Your task to perform on an android device: turn off notifications settings in the gmail app Image 0: 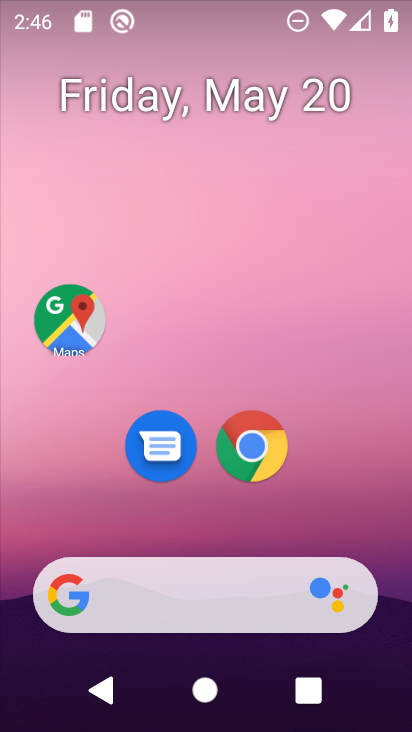
Step 0: drag from (384, 566) to (381, 18)
Your task to perform on an android device: turn off notifications settings in the gmail app Image 1: 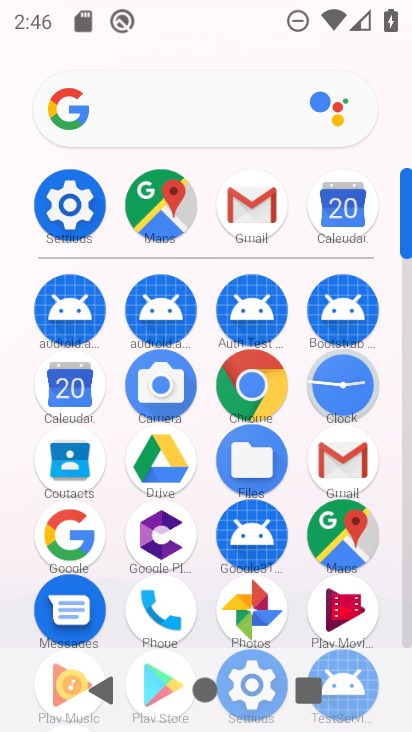
Step 1: click (251, 210)
Your task to perform on an android device: turn off notifications settings in the gmail app Image 2: 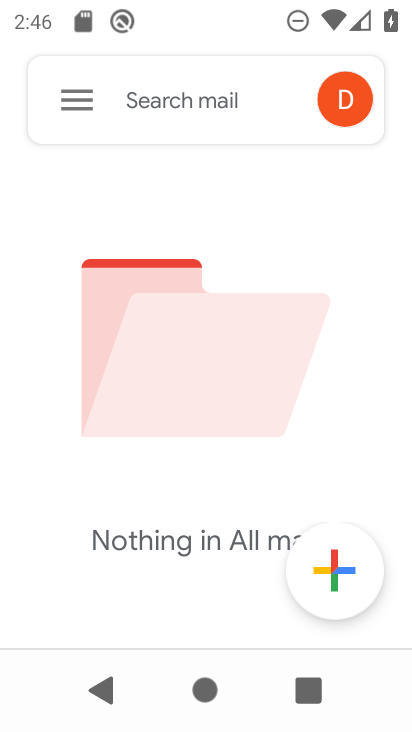
Step 2: click (68, 98)
Your task to perform on an android device: turn off notifications settings in the gmail app Image 3: 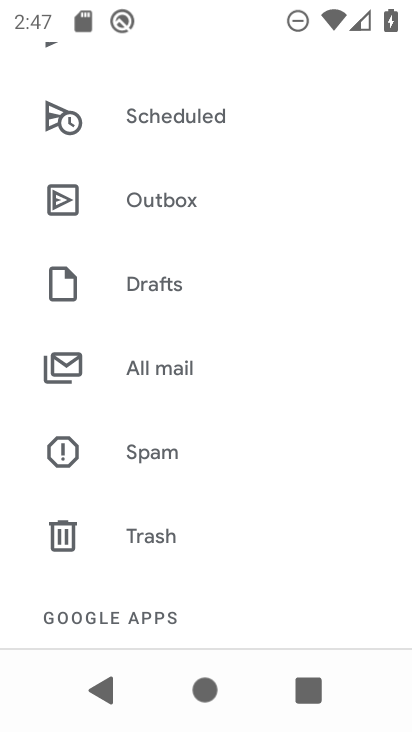
Step 3: drag from (220, 529) to (198, 140)
Your task to perform on an android device: turn off notifications settings in the gmail app Image 4: 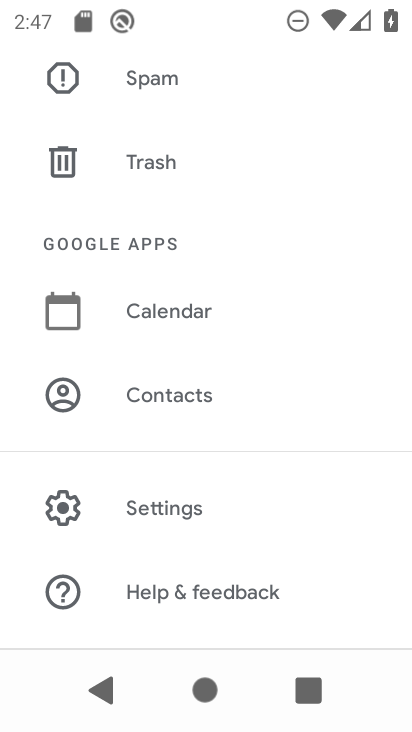
Step 4: click (168, 514)
Your task to perform on an android device: turn off notifications settings in the gmail app Image 5: 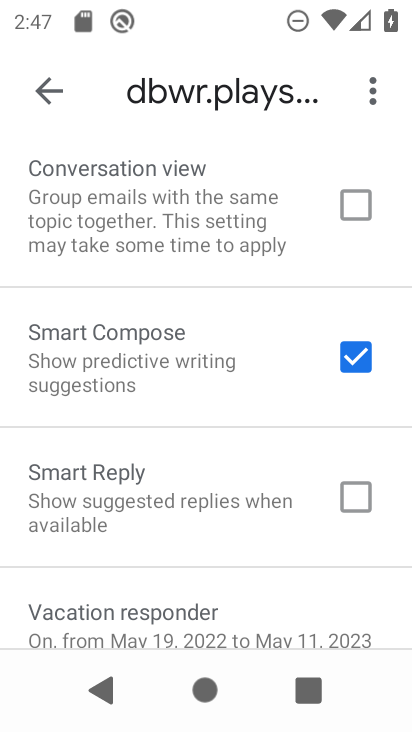
Step 5: drag from (168, 514) to (169, 177)
Your task to perform on an android device: turn off notifications settings in the gmail app Image 6: 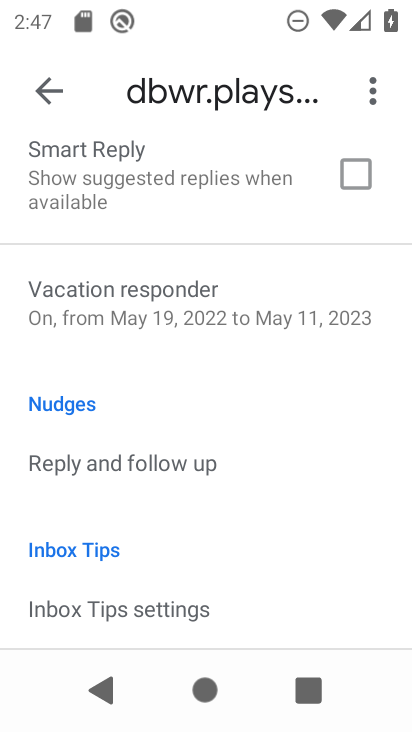
Step 6: click (54, 90)
Your task to perform on an android device: turn off notifications settings in the gmail app Image 7: 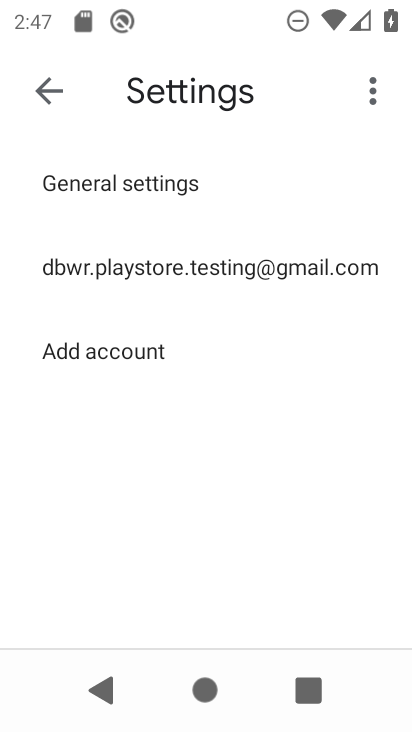
Step 7: click (82, 192)
Your task to perform on an android device: turn off notifications settings in the gmail app Image 8: 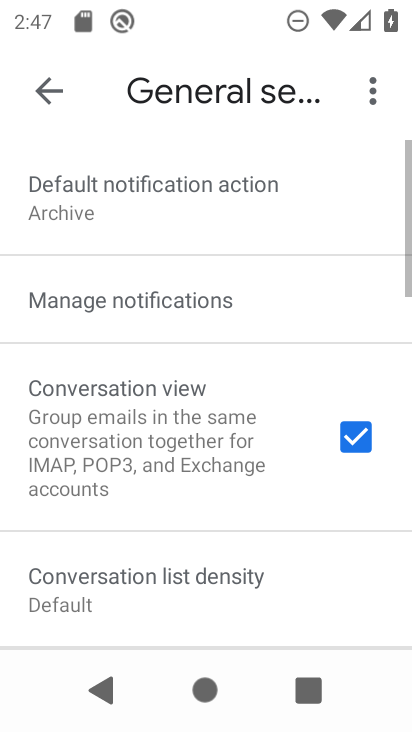
Step 8: click (97, 306)
Your task to perform on an android device: turn off notifications settings in the gmail app Image 9: 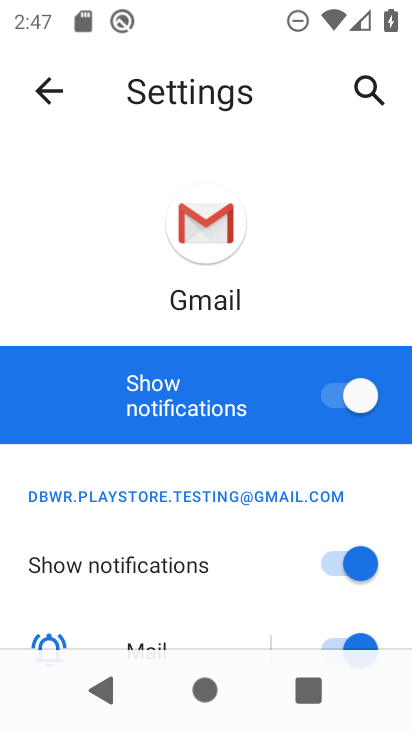
Step 9: click (346, 407)
Your task to perform on an android device: turn off notifications settings in the gmail app Image 10: 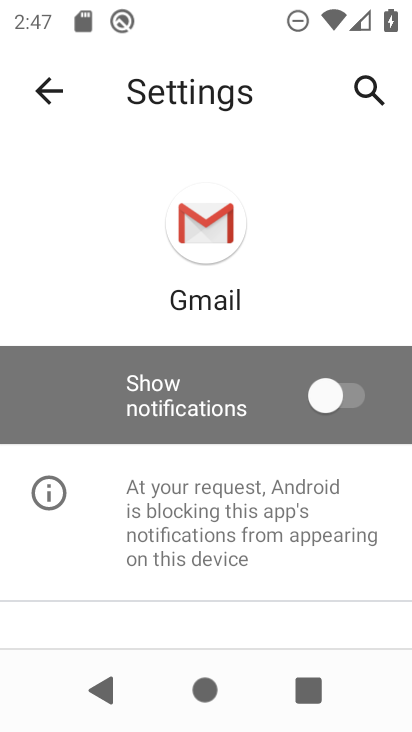
Step 10: task complete